Your task to perform on an android device: show emergency info Image 0: 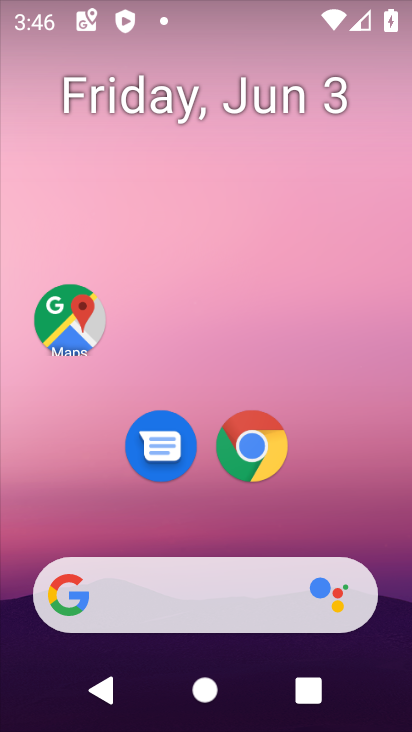
Step 0: task complete